Your task to perform on an android device: turn on airplane mode Image 0: 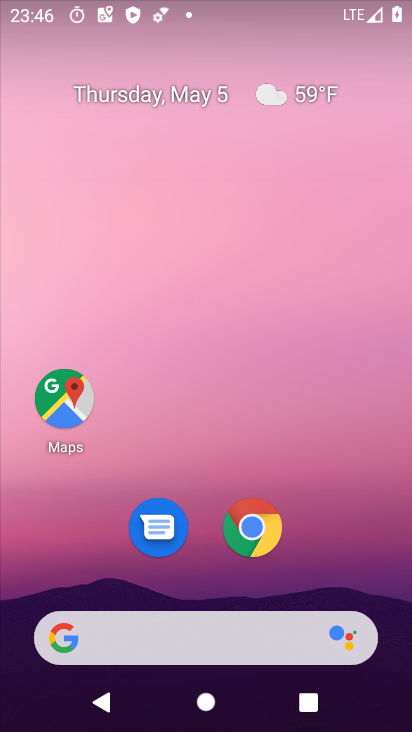
Step 0: drag from (226, 577) to (247, 17)
Your task to perform on an android device: turn on airplane mode Image 1: 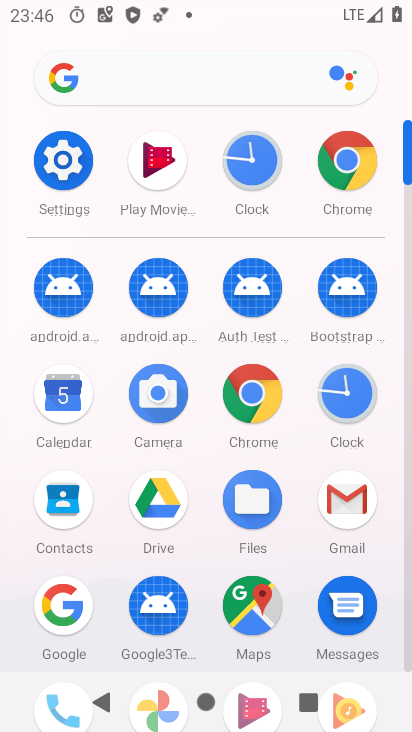
Step 1: click (66, 197)
Your task to perform on an android device: turn on airplane mode Image 2: 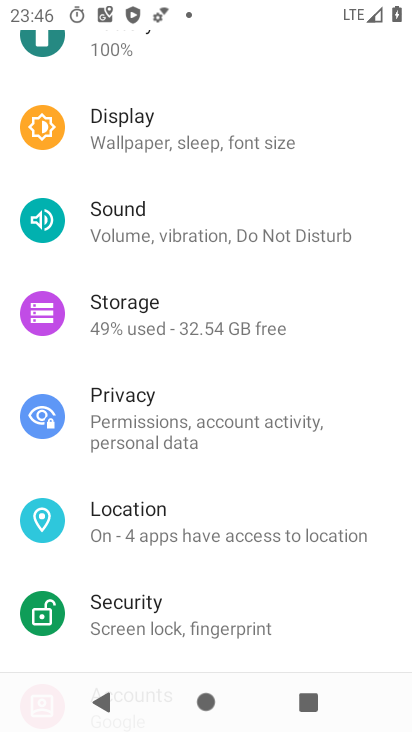
Step 2: drag from (233, 202) to (242, 673)
Your task to perform on an android device: turn on airplane mode Image 3: 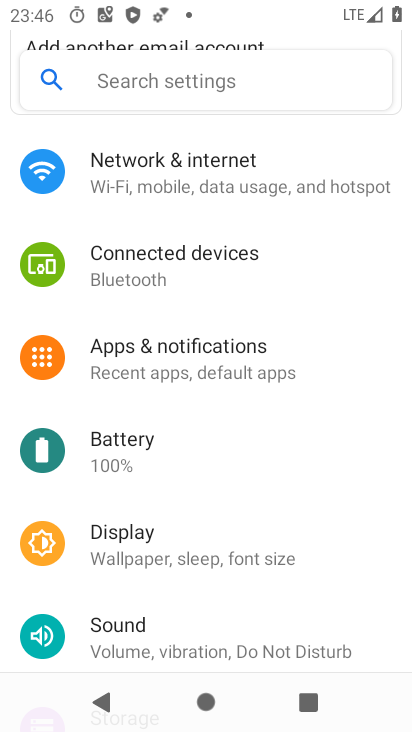
Step 3: click (200, 183)
Your task to perform on an android device: turn on airplane mode Image 4: 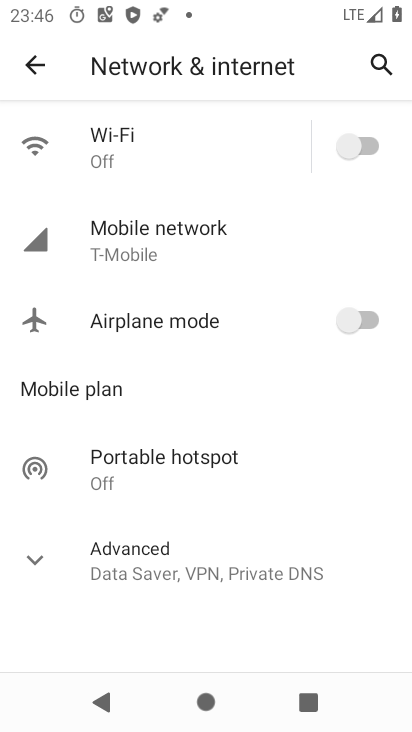
Step 4: click (298, 336)
Your task to perform on an android device: turn on airplane mode Image 5: 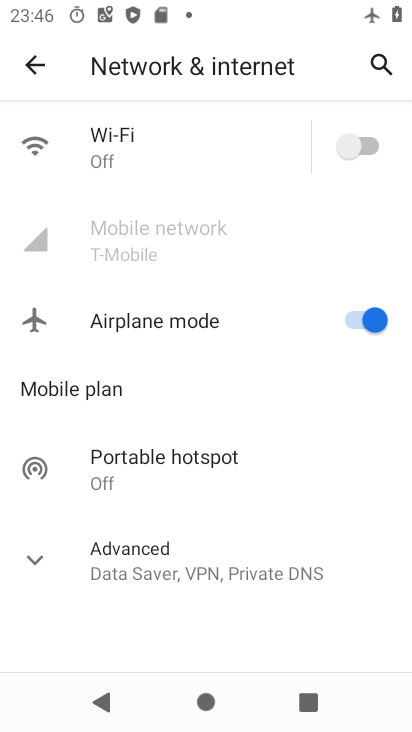
Step 5: task complete